Your task to perform on an android device: Open calendar and show me the fourth week of next month Image 0: 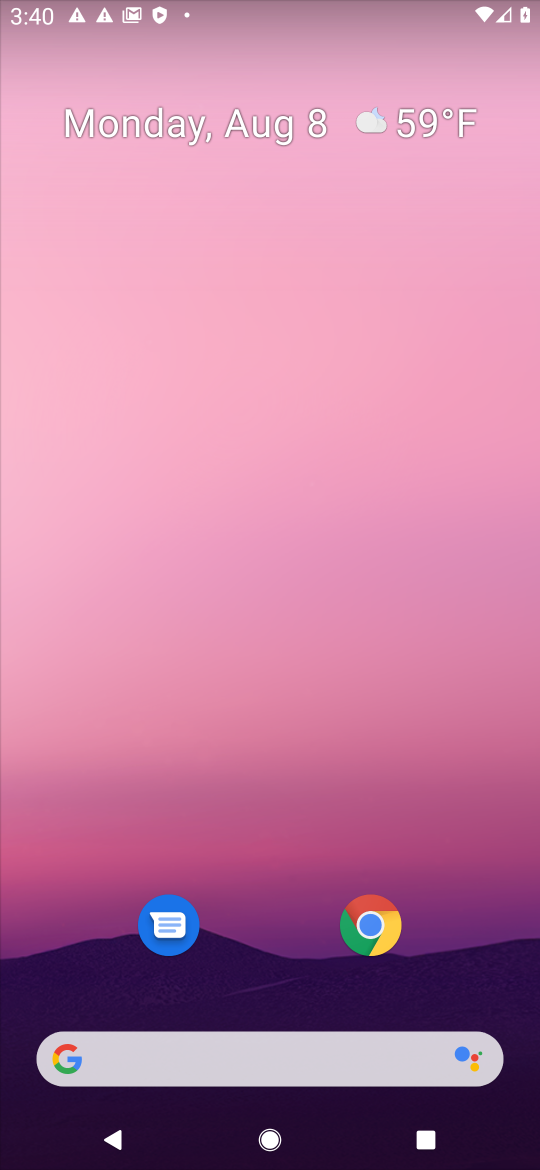
Step 0: drag from (254, 939) to (249, 86)
Your task to perform on an android device: Open calendar and show me the fourth week of next month Image 1: 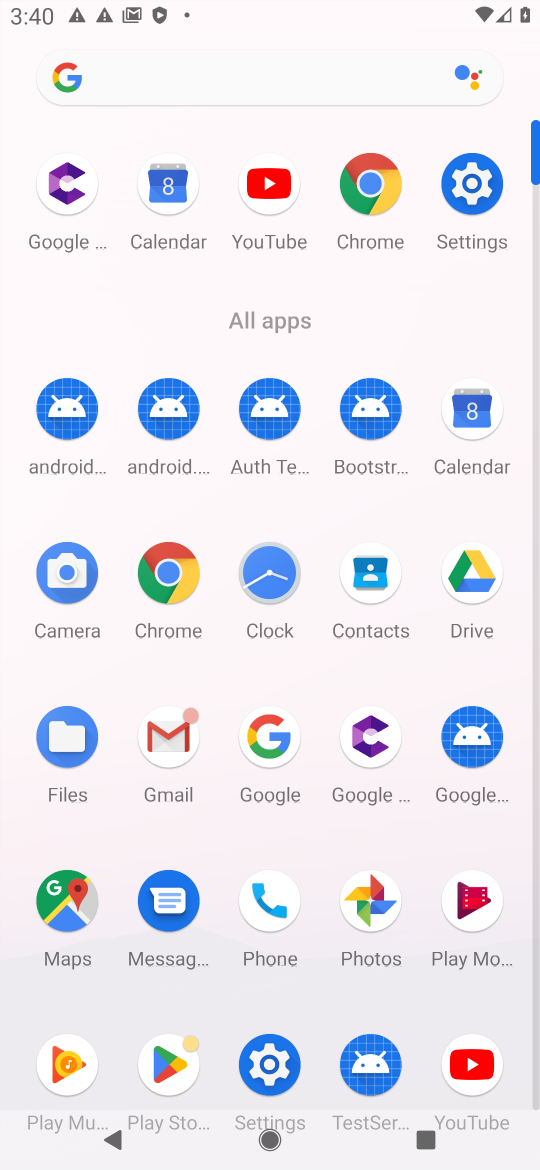
Step 1: click (466, 407)
Your task to perform on an android device: Open calendar and show me the fourth week of next month Image 2: 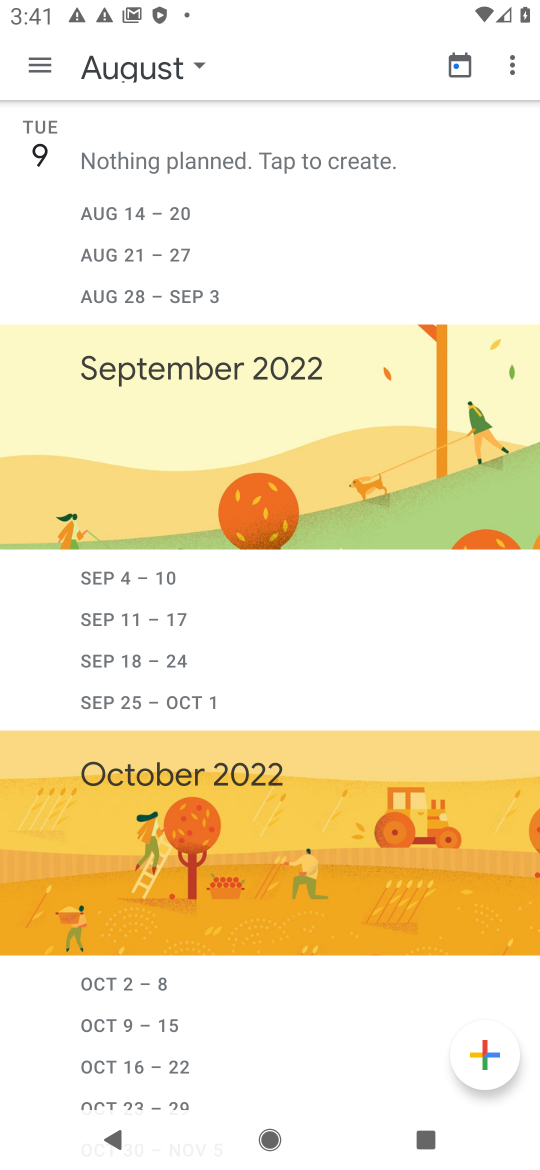
Step 2: click (199, 67)
Your task to perform on an android device: Open calendar and show me the fourth week of next month Image 3: 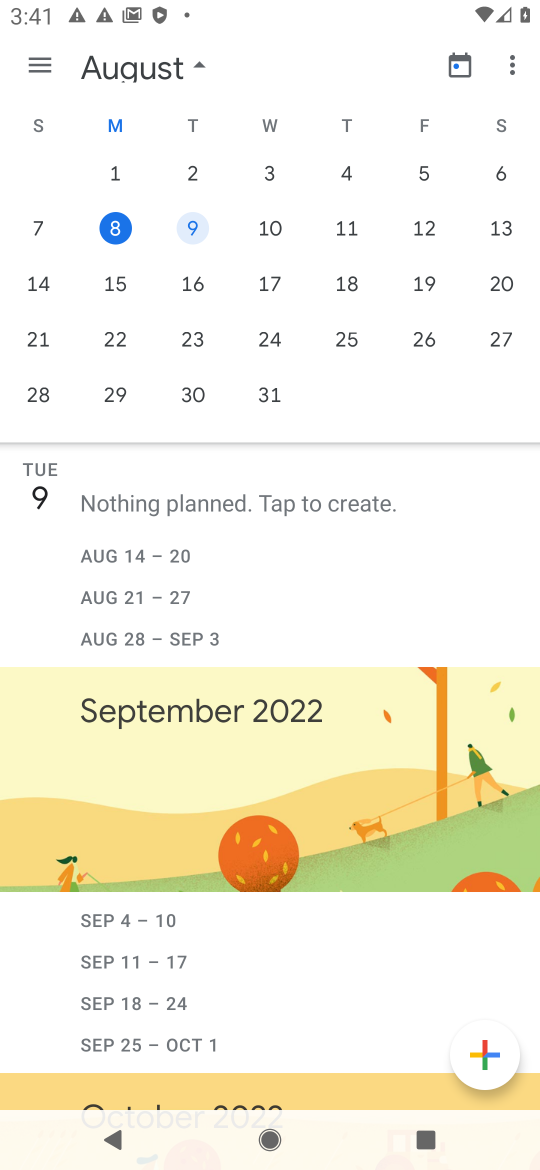
Step 3: drag from (456, 304) to (0, 251)
Your task to perform on an android device: Open calendar and show me the fourth week of next month Image 4: 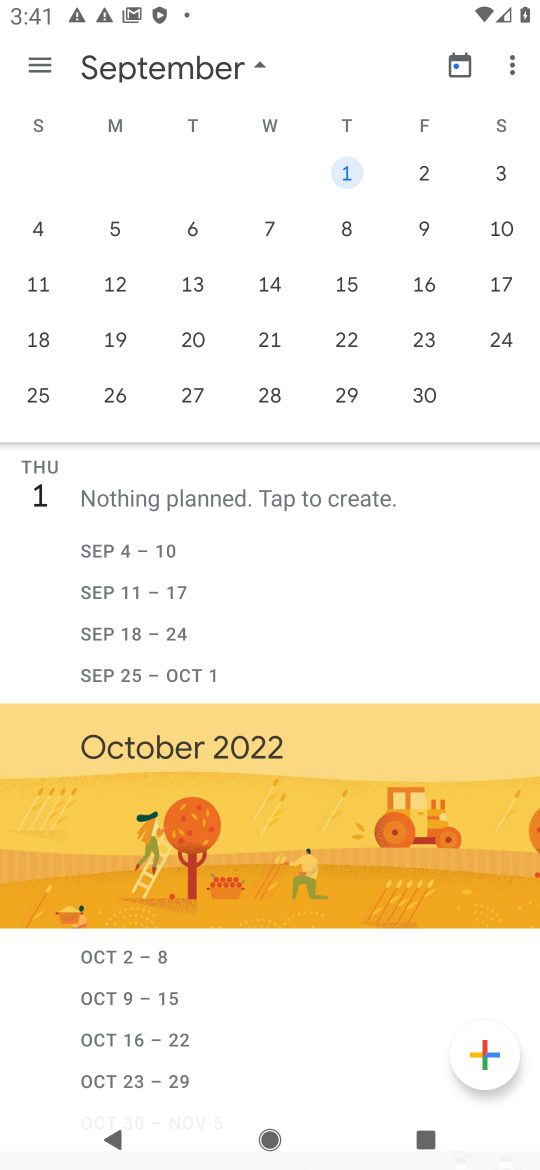
Step 4: click (113, 398)
Your task to perform on an android device: Open calendar and show me the fourth week of next month Image 5: 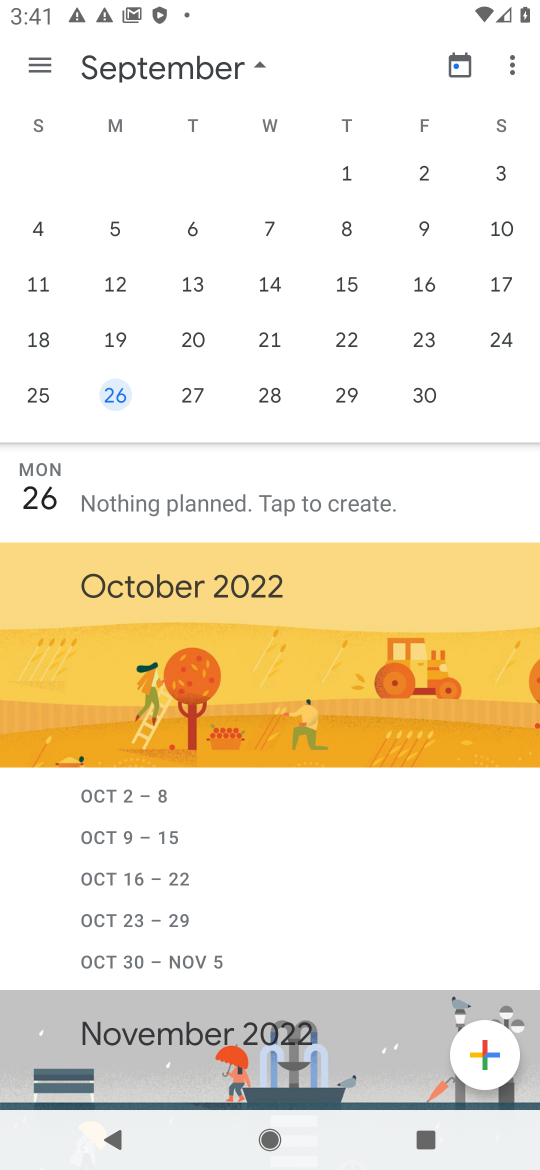
Step 5: click (52, 70)
Your task to perform on an android device: Open calendar and show me the fourth week of next month Image 6: 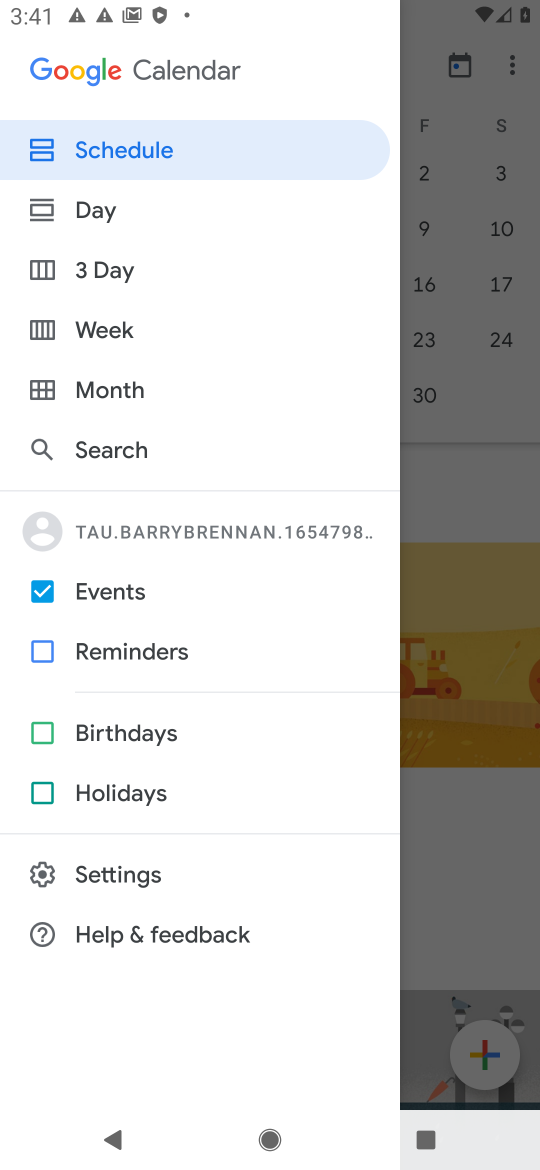
Step 6: click (89, 330)
Your task to perform on an android device: Open calendar and show me the fourth week of next month Image 7: 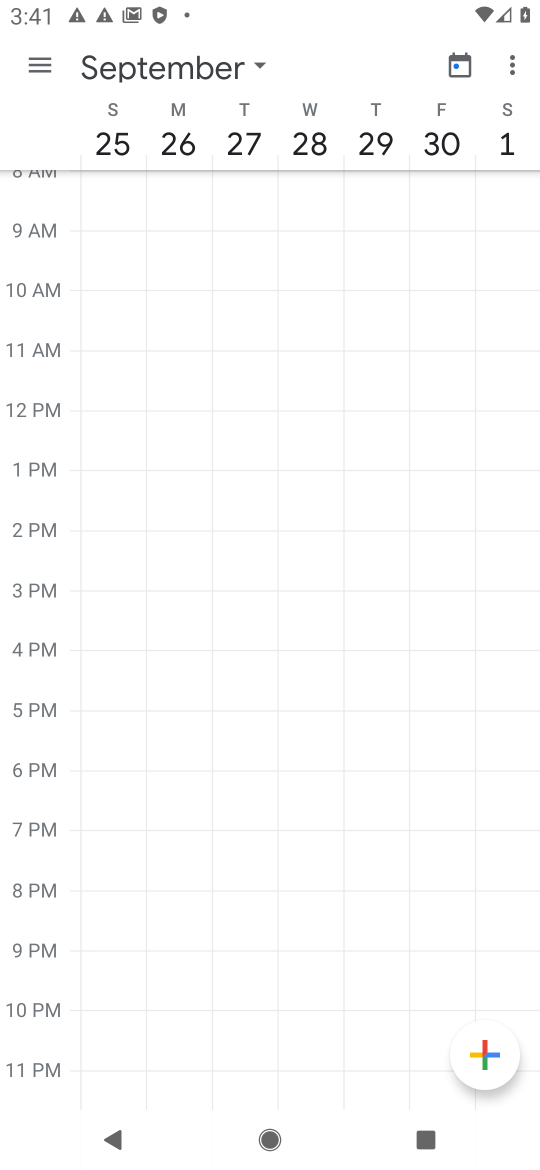
Step 7: task complete